Your task to perform on an android device: turn on airplane mode Image 0: 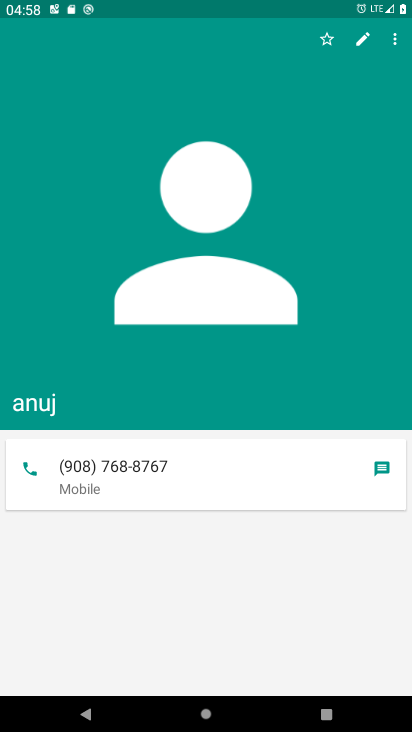
Step 0: press home button
Your task to perform on an android device: turn on airplane mode Image 1: 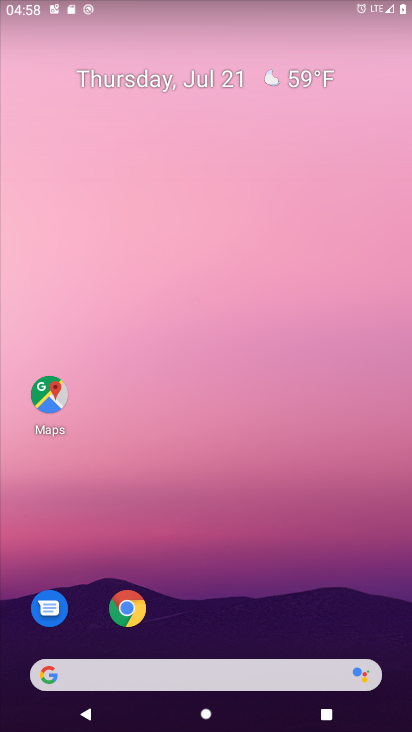
Step 1: drag from (313, 675) to (260, 15)
Your task to perform on an android device: turn on airplane mode Image 2: 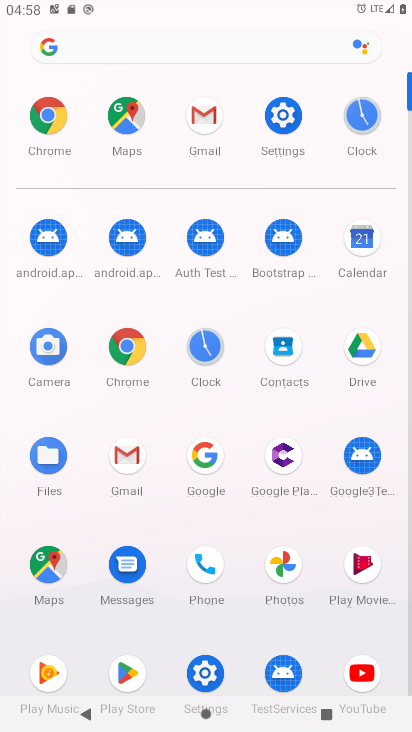
Step 2: click (285, 114)
Your task to perform on an android device: turn on airplane mode Image 3: 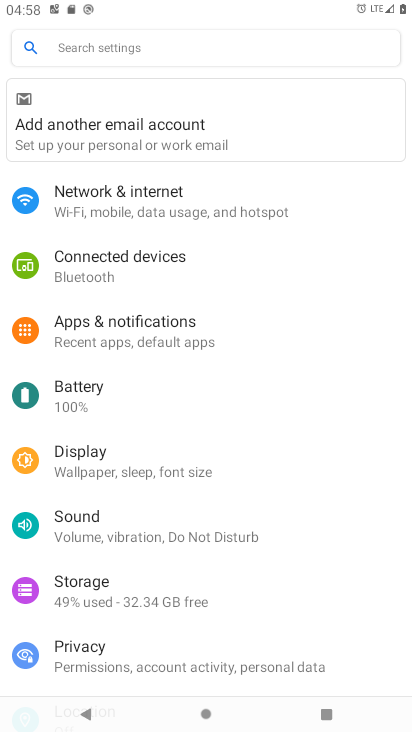
Step 3: click (139, 208)
Your task to perform on an android device: turn on airplane mode Image 4: 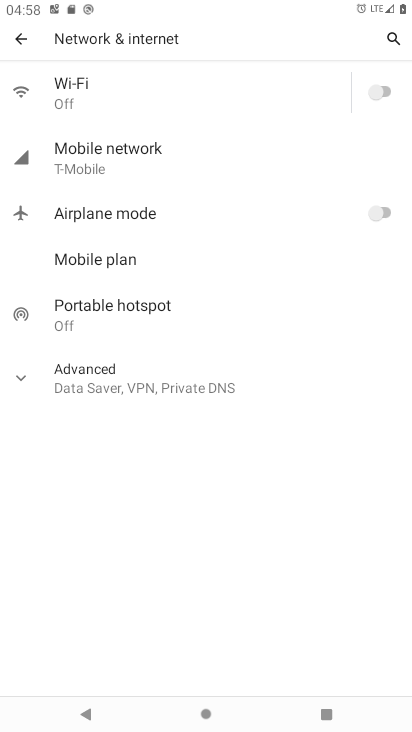
Step 4: click (383, 213)
Your task to perform on an android device: turn on airplane mode Image 5: 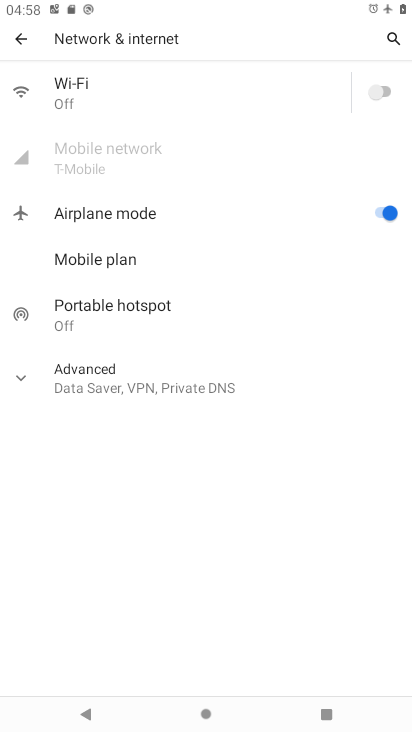
Step 5: task complete